Your task to perform on an android device: Go to display settings Image 0: 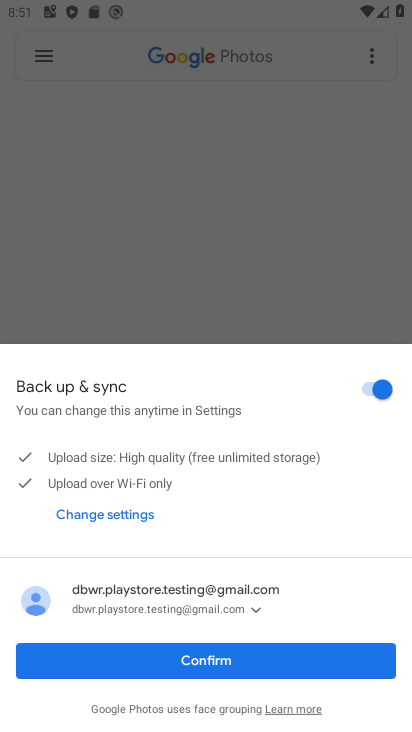
Step 0: press home button
Your task to perform on an android device: Go to display settings Image 1: 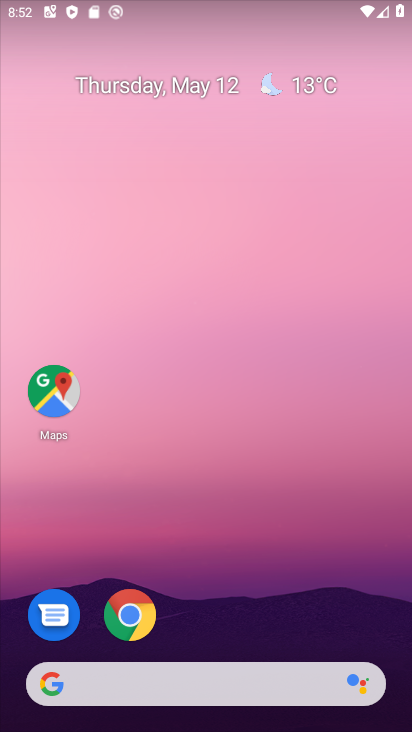
Step 1: drag from (247, 645) to (154, 23)
Your task to perform on an android device: Go to display settings Image 2: 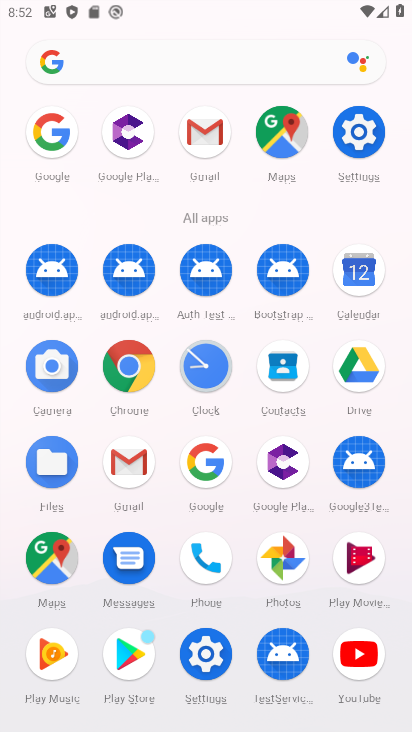
Step 2: click (357, 149)
Your task to perform on an android device: Go to display settings Image 3: 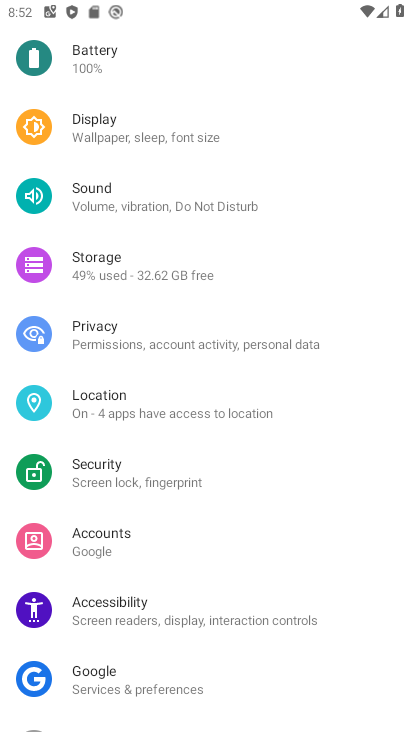
Step 3: click (98, 133)
Your task to perform on an android device: Go to display settings Image 4: 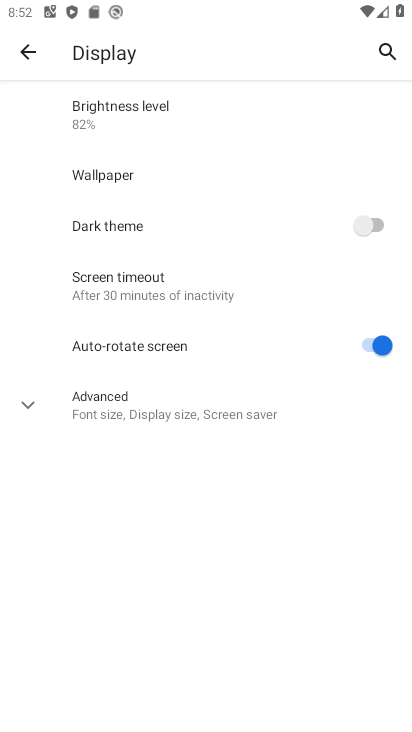
Step 4: click (77, 406)
Your task to perform on an android device: Go to display settings Image 5: 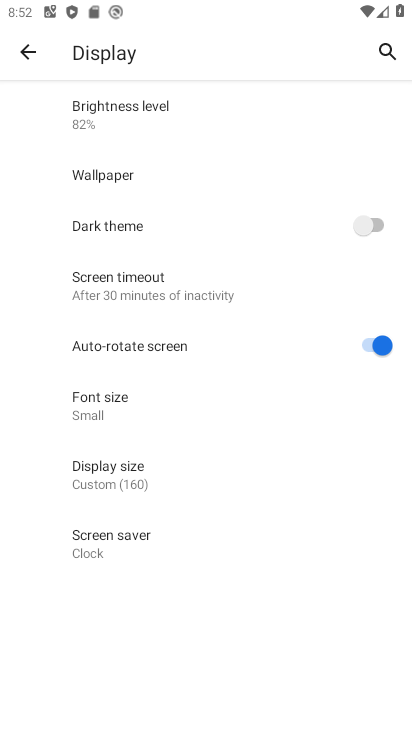
Step 5: task complete